Your task to perform on an android device: remove spam from my inbox in the gmail app Image 0: 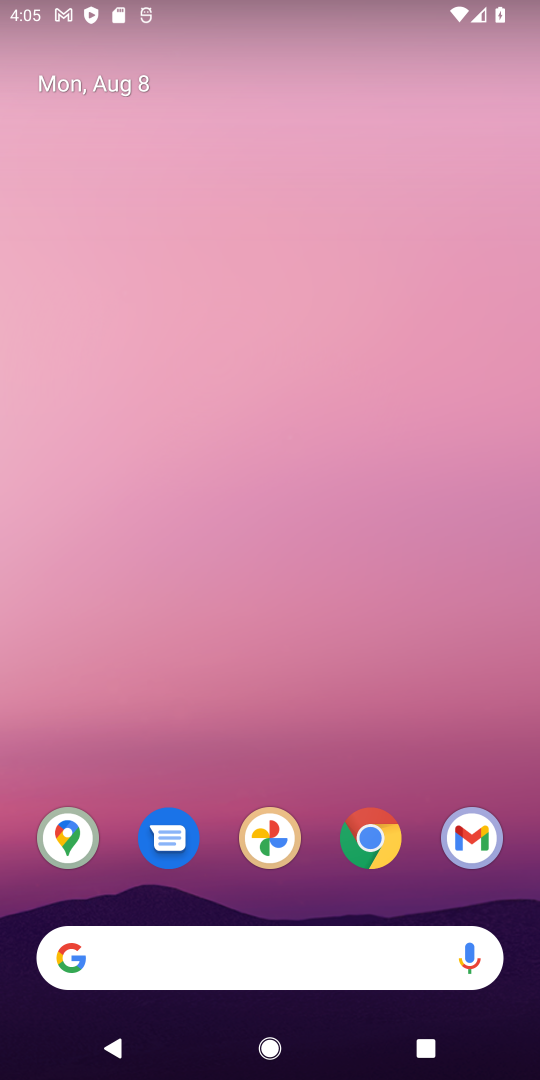
Step 0: drag from (285, 958) to (302, 426)
Your task to perform on an android device: remove spam from my inbox in the gmail app Image 1: 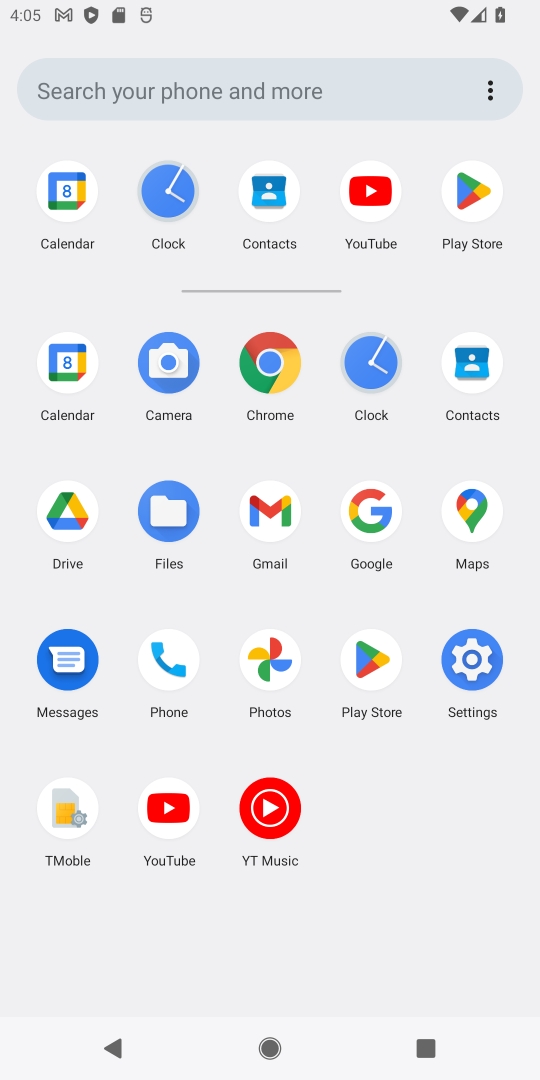
Step 1: click (272, 506)
Your task to perform on an android device: remove spam from my inbox in the gmail app Image 2: 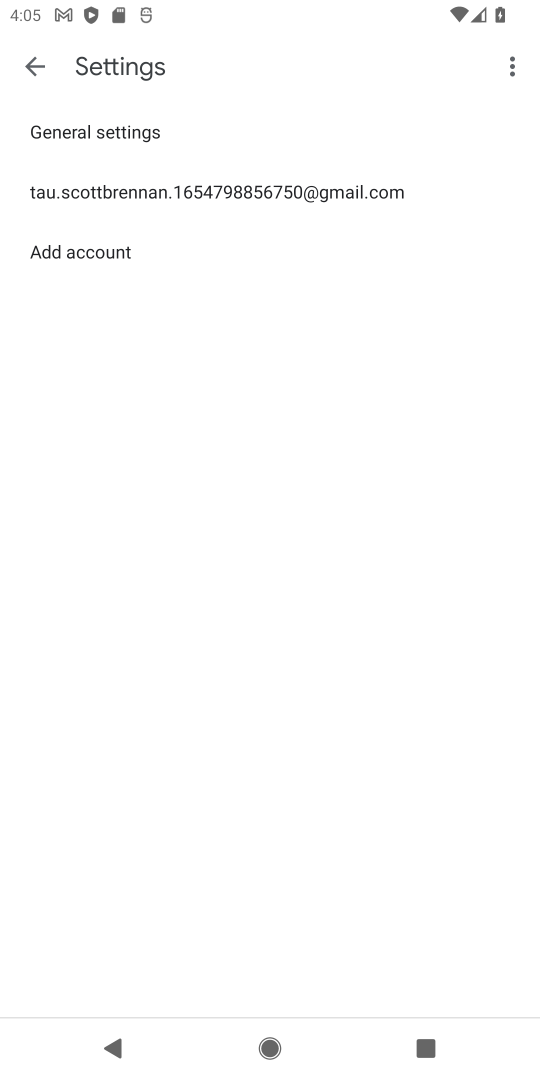
Step 2: press back button
Your task to perform on an android device: remove spam from my inbox in the gmail app Image 3: 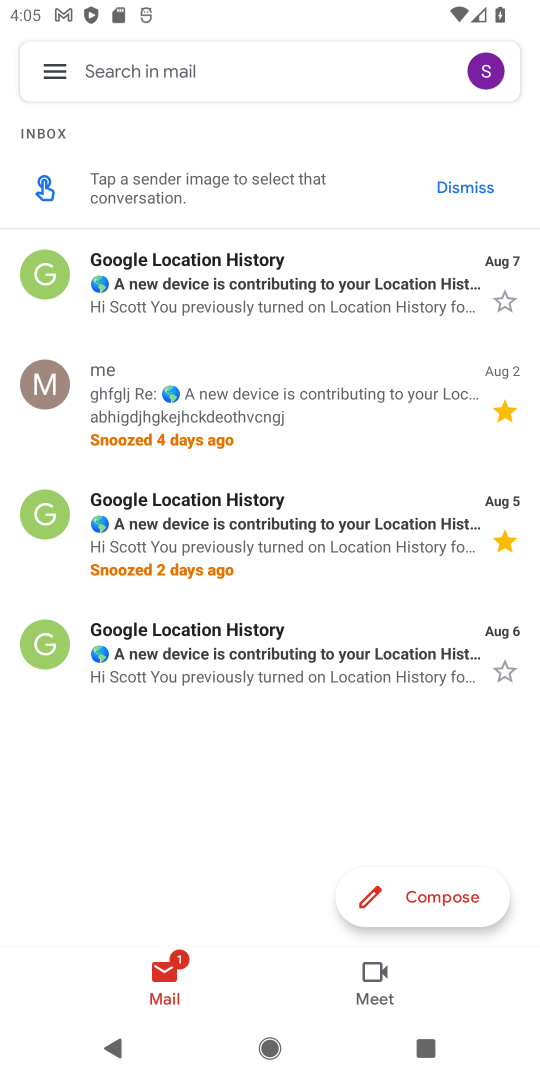
Step 3: click (45, 71)
Your task to perform on an android device: remove spam from my inbox in the gmail app Image 4: 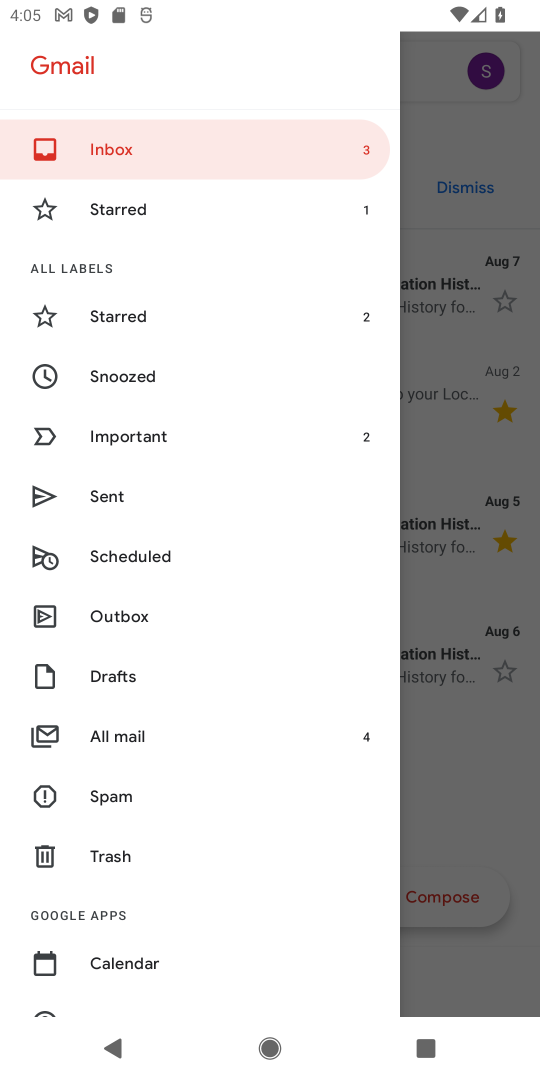
Step 4: click (123, 794)
Your task to perform on an android device: remove spam from my inbox in the gmail app Image 5: 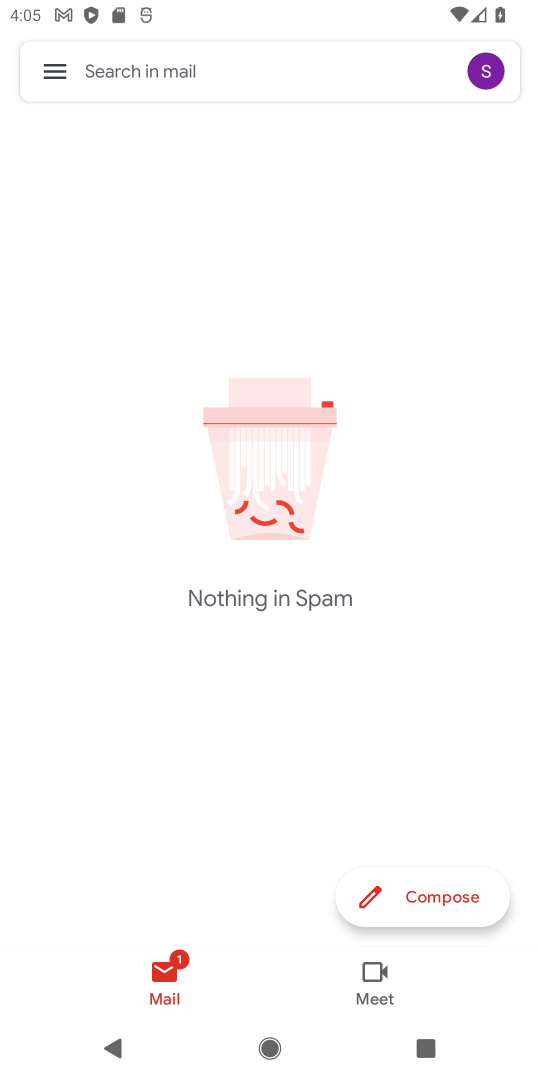
Step 5: task complete